Your task to perform on an android device: see creations saved in the google photos Image 0: 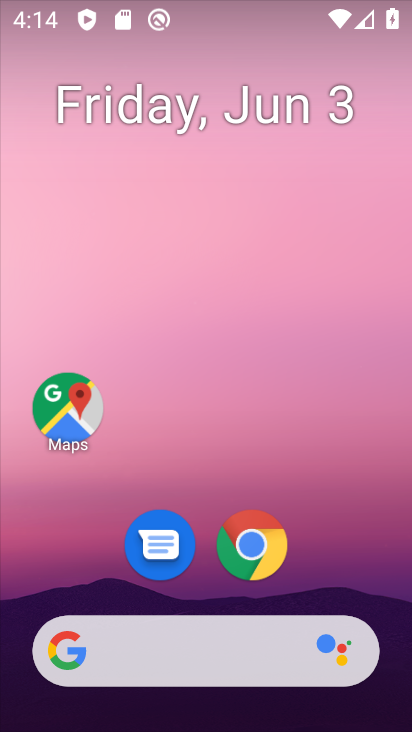
Step 0: drag from (121, 616) to (207, 100)
Your task to perform on an android device: see creations saved in the google photos Image 1: 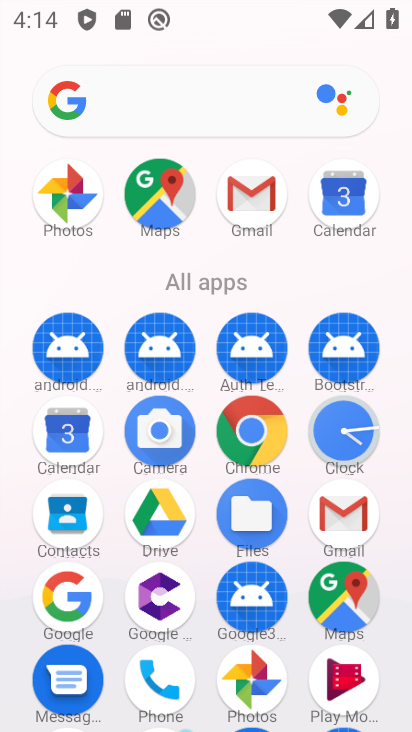
Step 1: click (259, 684)
Your task to perform on an android device: see creations saved in the google photos Image 2: 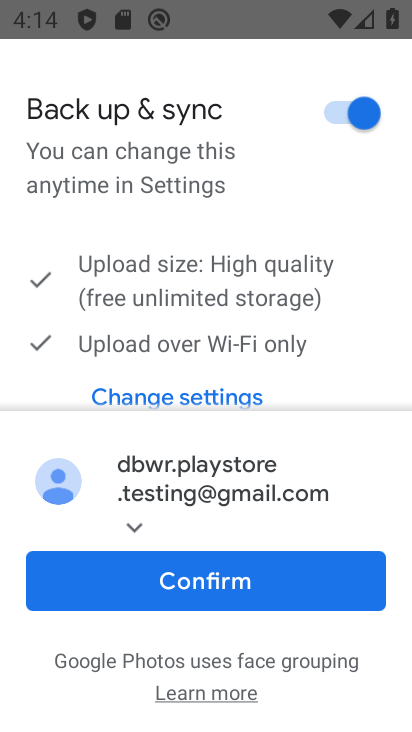
Step 2: click (247, 582)
Your task to perform on an android device: see creations saved in the google photos Image 3: 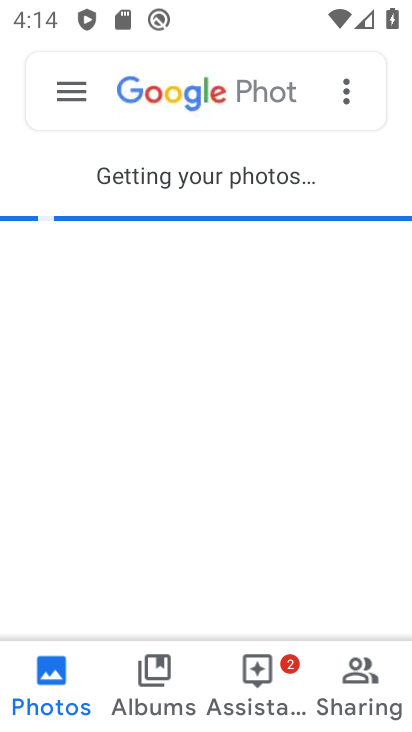
Step 3: click (174, 87)
Your task to perform on an android device: see creations saved in the google photos Image 4: 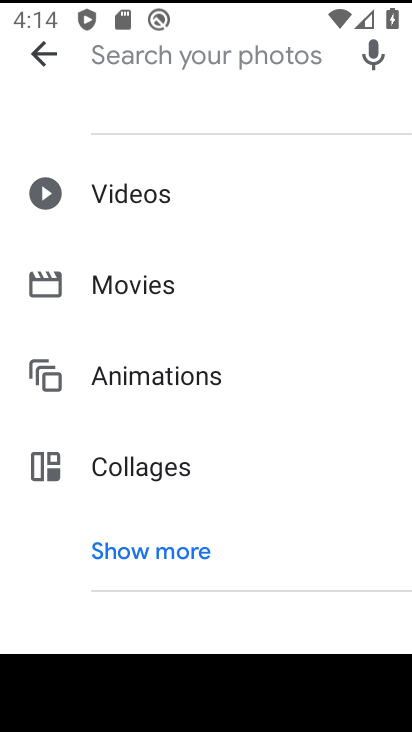
Step 4: click (158, 556)
Your task to perform on an android device: see creations saved in the google photos Image 5: 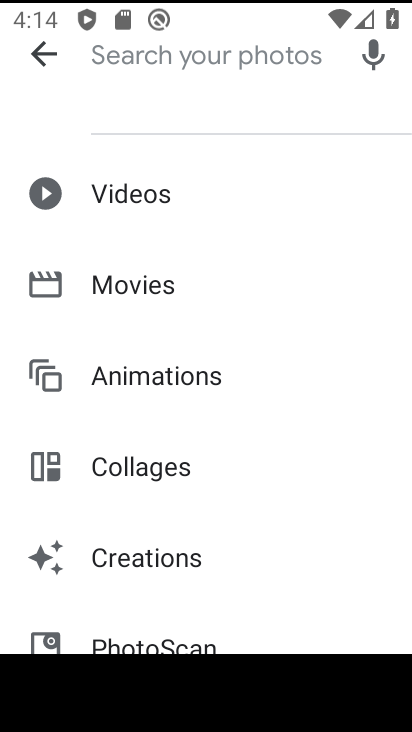
Step 5: click (169, 568)
Your task to perform on an android device: see creations saved in the google photos Image 6: 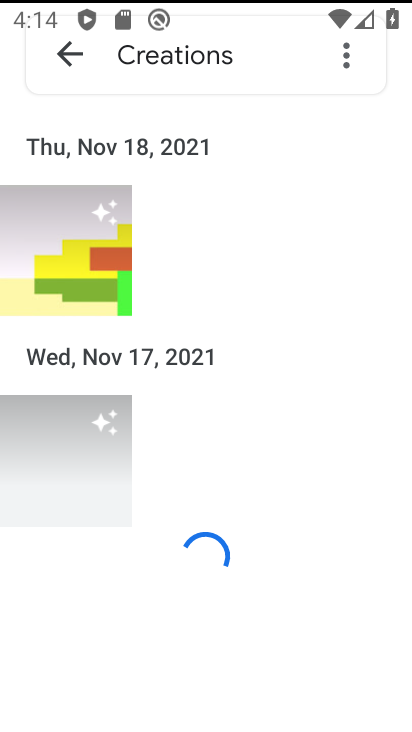
Step 6: task complete